Your task to perform on an android device: toggle translation in the chrome app Image 0: 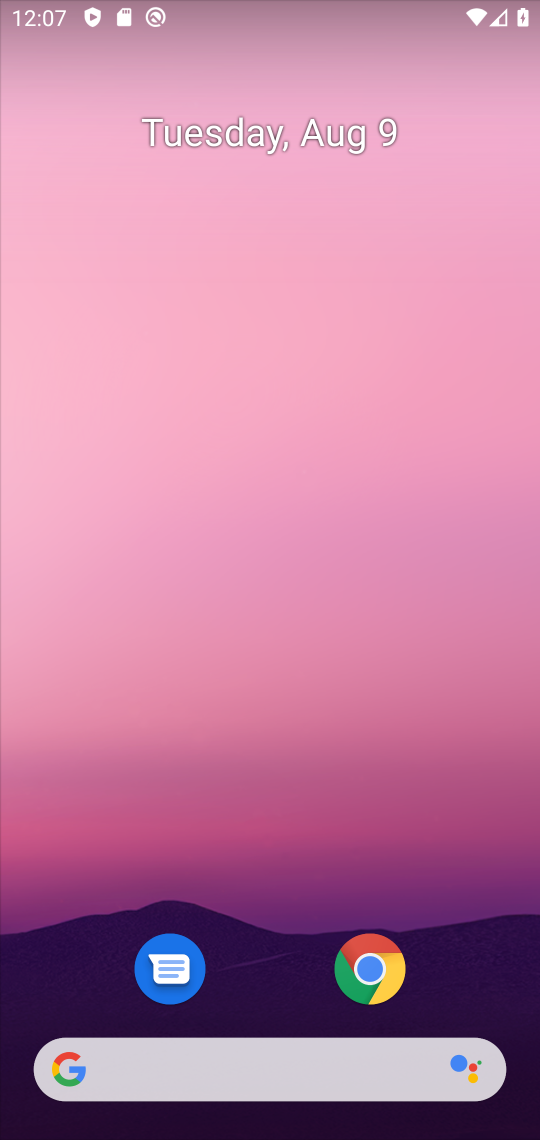
Step 0: drag from (422, 136) to (445, 68)
Your task to perform on an android device: toggle translation in the chrome app Image 1: 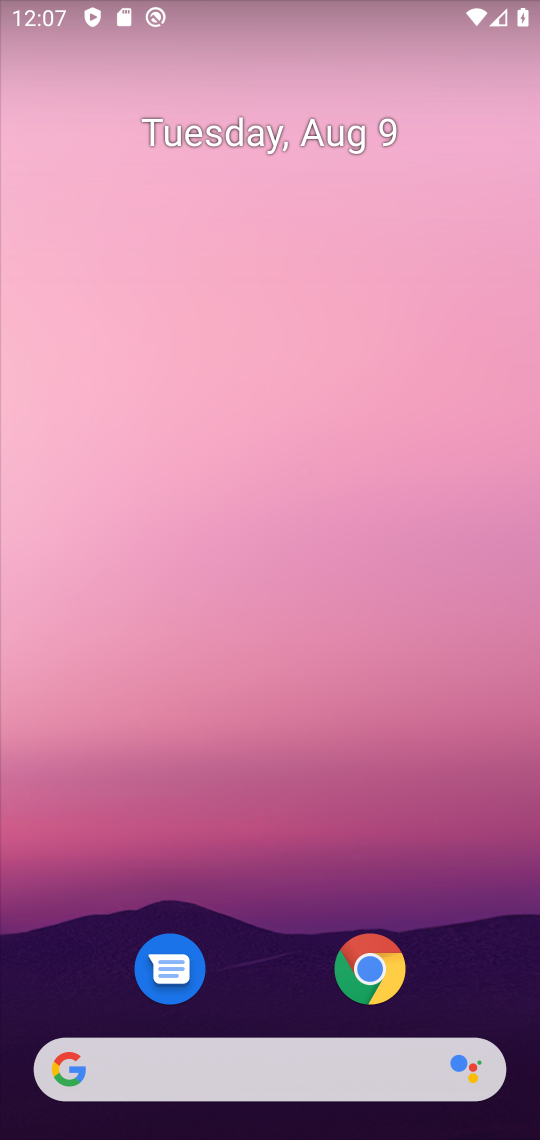
Step 1: click (372, 956)
Your task to perform on an android device: toggle translation in the chrome app Image 2: 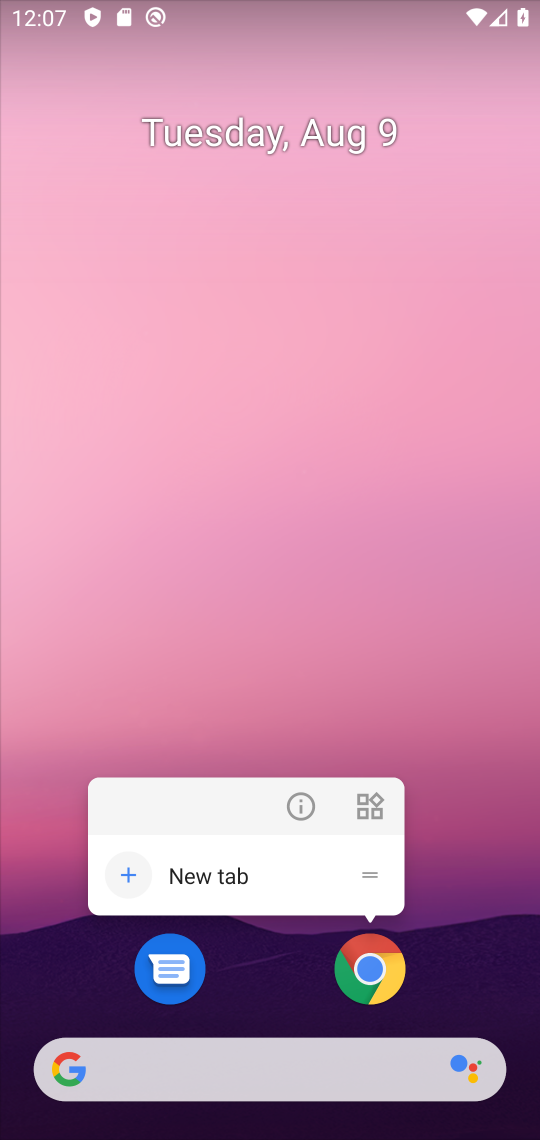
Step 2: click (306, 799)
Your task to perform on an android device: toggle translation in the chrome app Image 3: 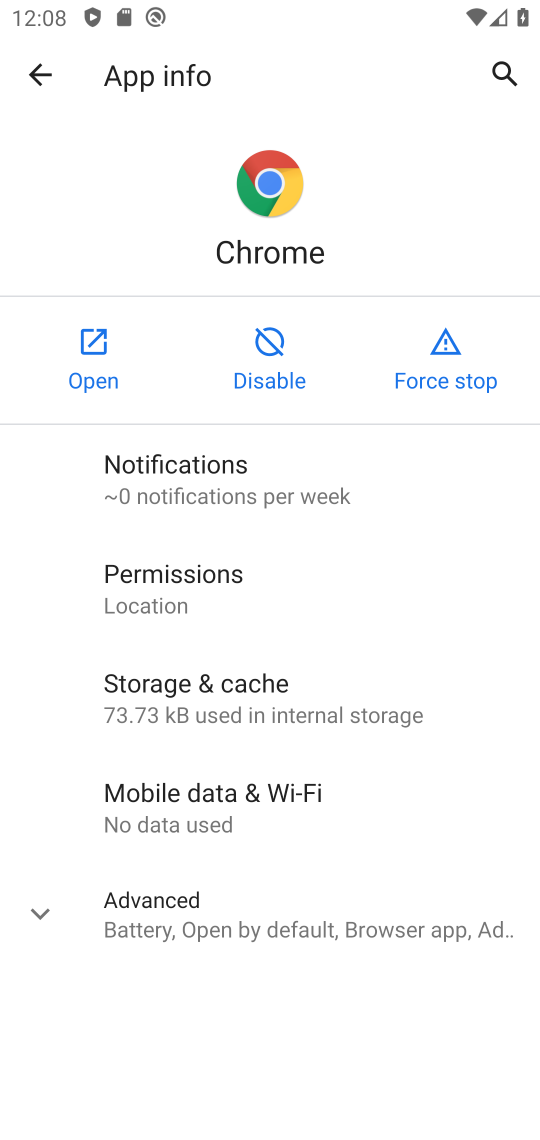
Step 3: click (102, 386)
Your task to perform on an android device: toggle translation in the chrome app Image 4: 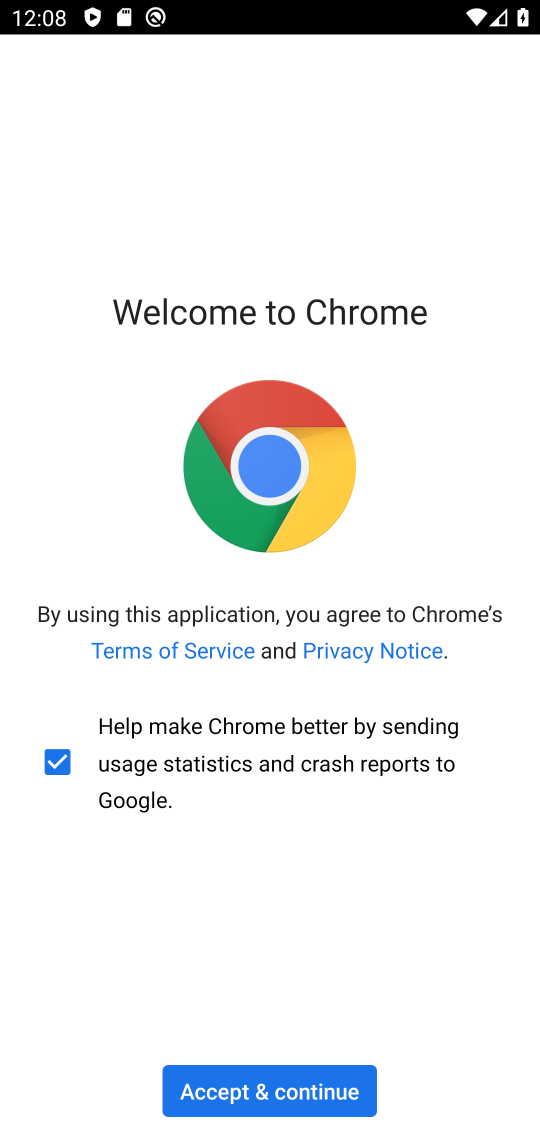
Step 4: click (334, 655)
Your task to perform on an android device: toggle translation in the chrome app Image 5: 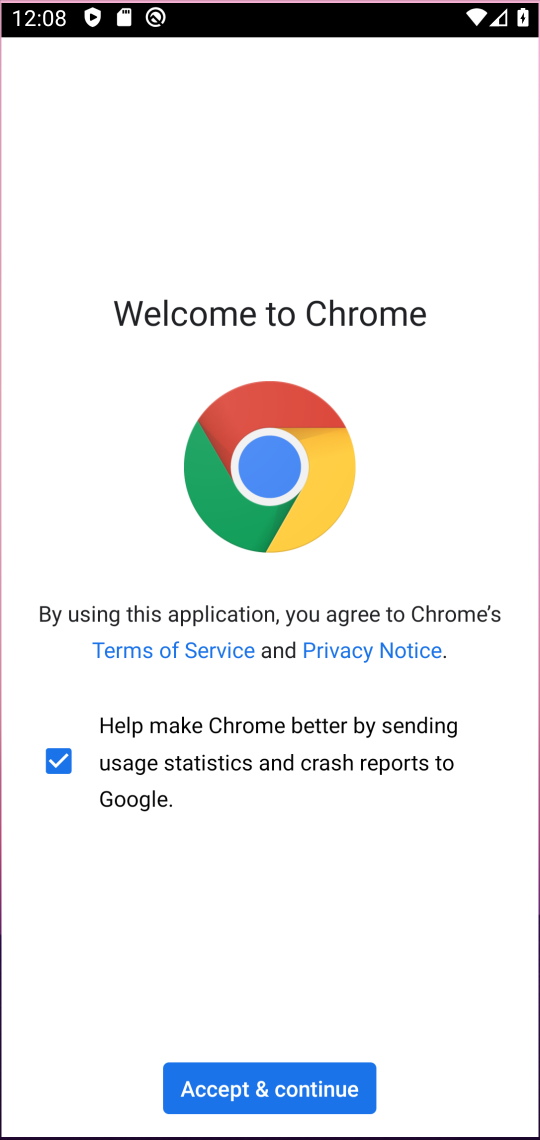
Step 5: click (216, 1082)
Your task to perform on an android device: toggle translation in the chrome app Image 6: 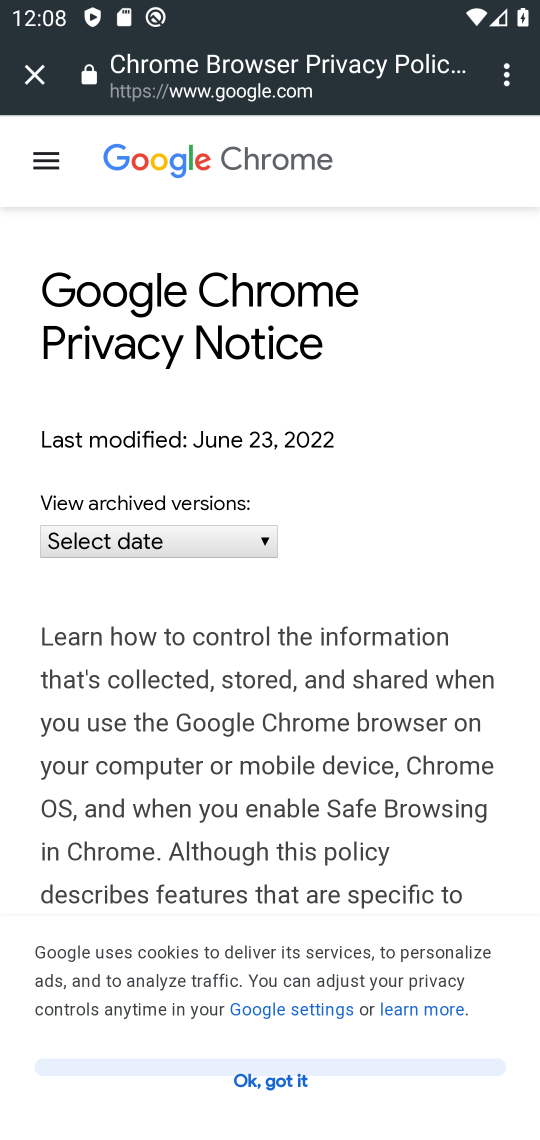
Step 6: drag from (331, 870) to (345, 529)
Your task to perform on an android device: toggle translation in the chrome app Image 7: 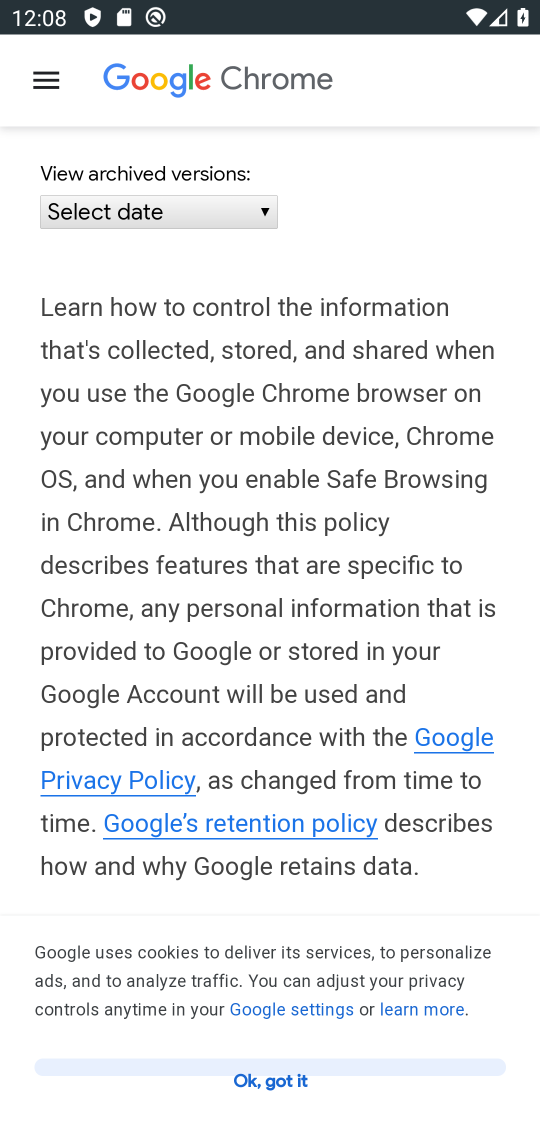
Step 7: click (287, 1074)
Your task to perform on an android device: toggle translation in the chrome app Image 8: 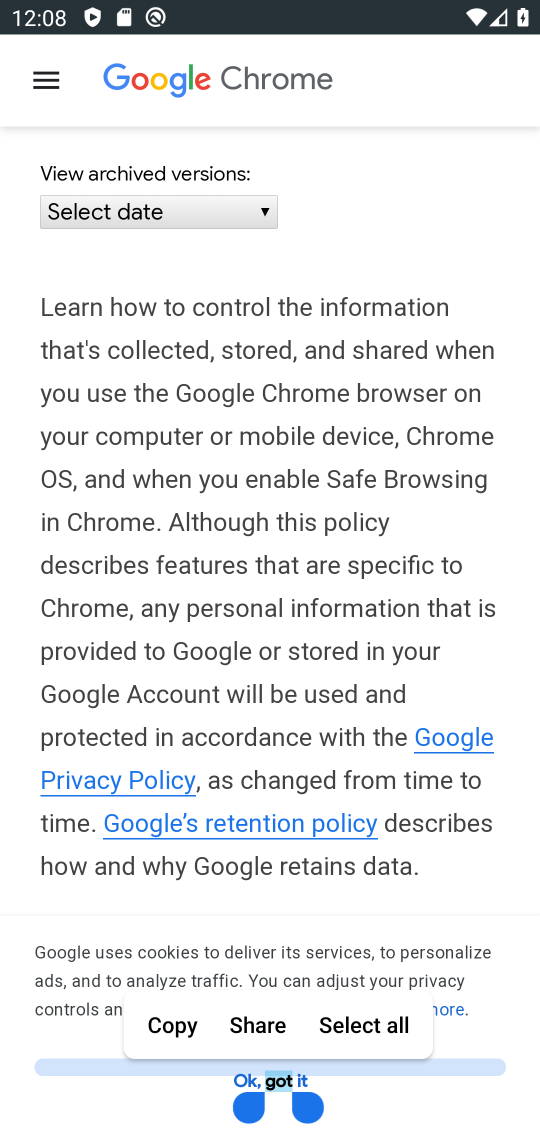
Step 8: click (289, 1092)
Your task to perform on an android device: toggle translation in the chrome app Image 9: 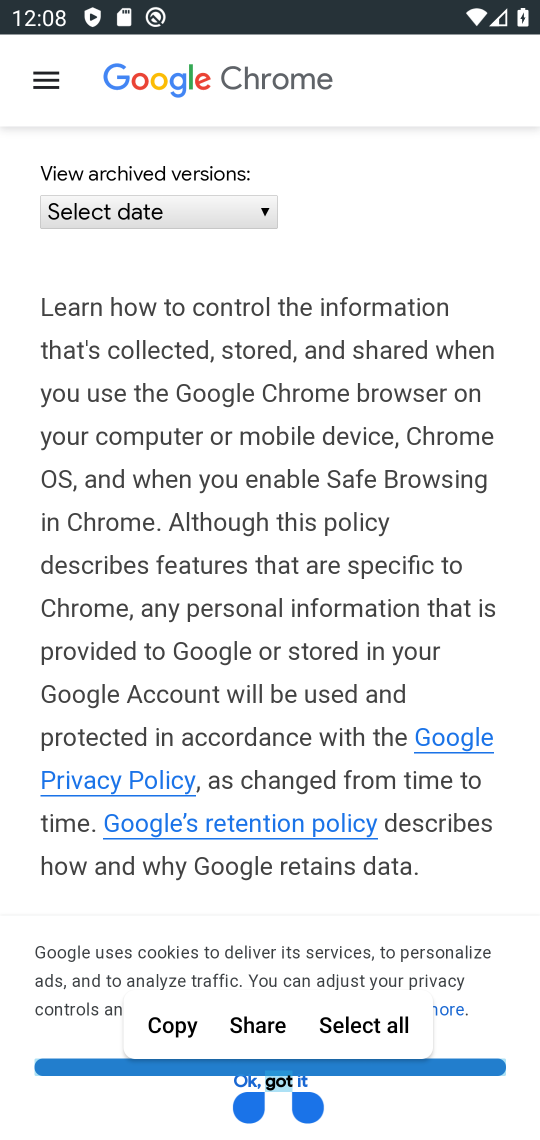
Step 9: click (260, 1077)
Your task to perform on an android device: toggle translation in the chrome app Image 10: 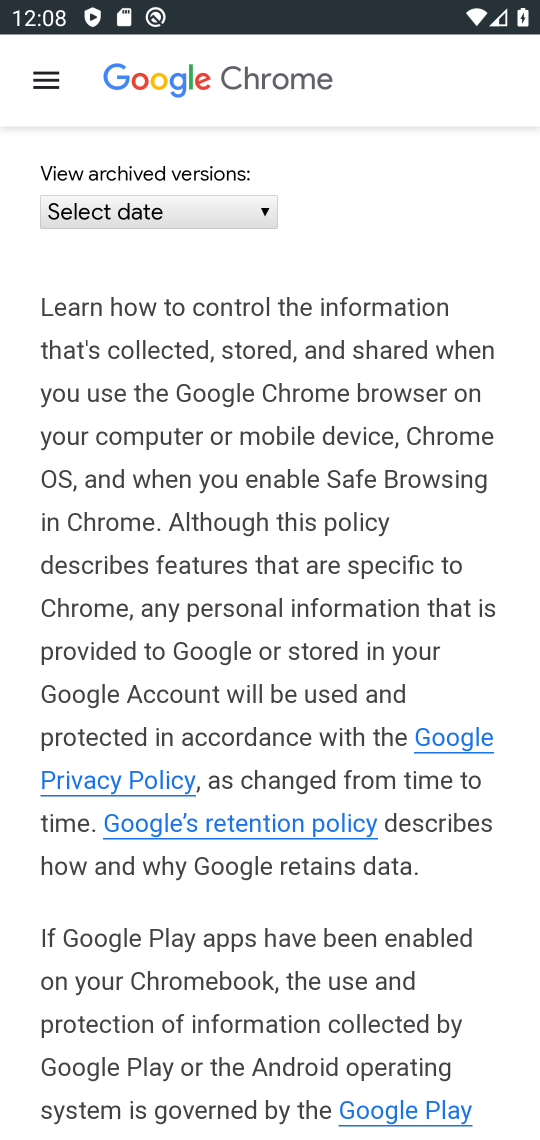
Step 10: drag from (309, 1025) to (505, 62)
Your task to perform on an android device: toggle translation in the chrome app Image 11: 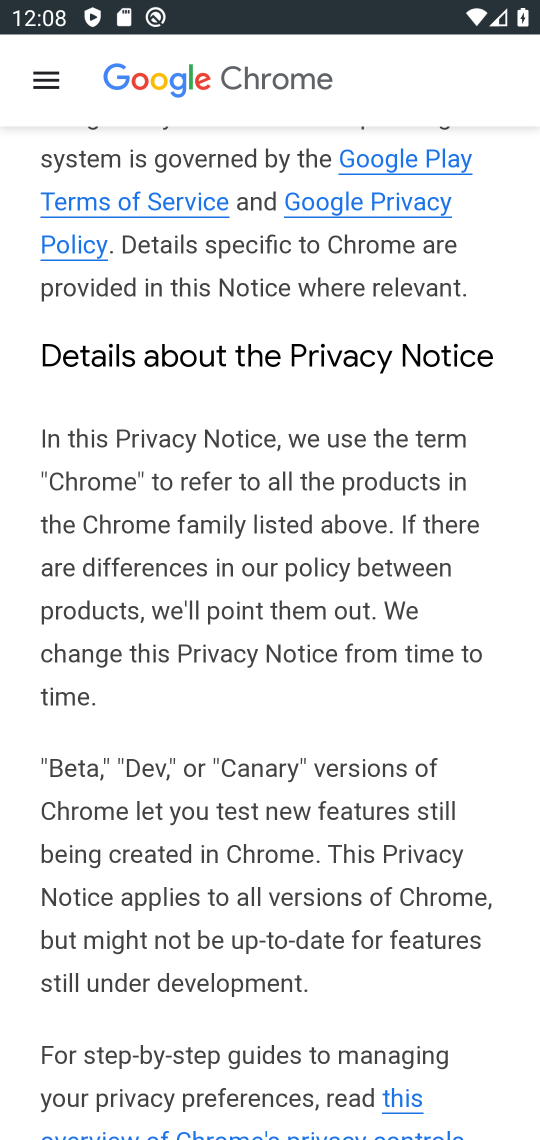
Step 11: drag from (289, 1004) to (449, 367)
Your task to perform on an android device: toggle translation in the chrome app Image 12: 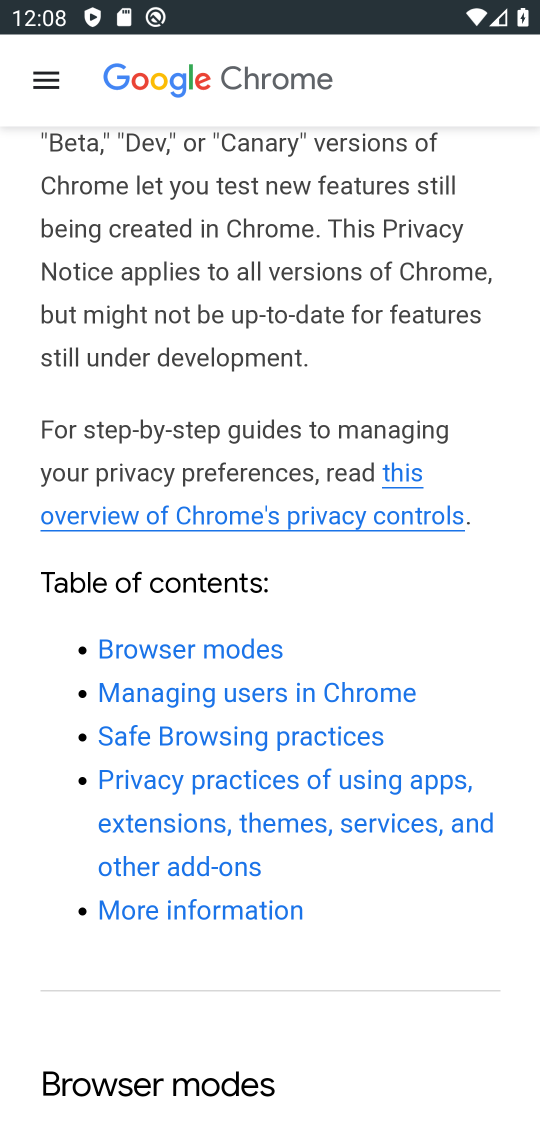
Step 12: drag from (301, 857) to (402, 612)
Your task to perform on an android device: toggle translation in the chrome app Image 13: 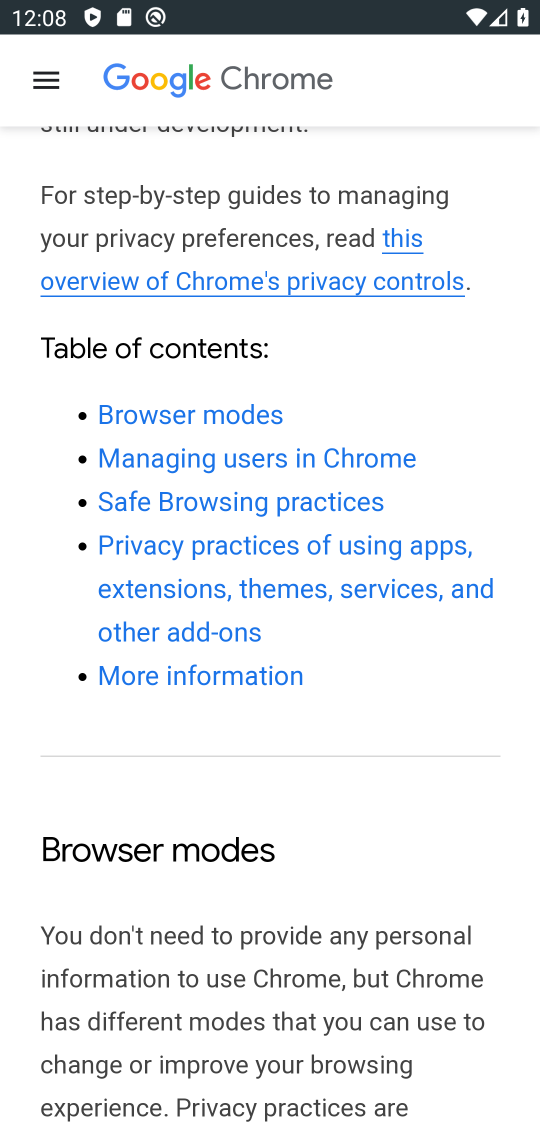
Step 13: press home button
Your task to perform on an android device: toggle translation in the chrome app Image 14: 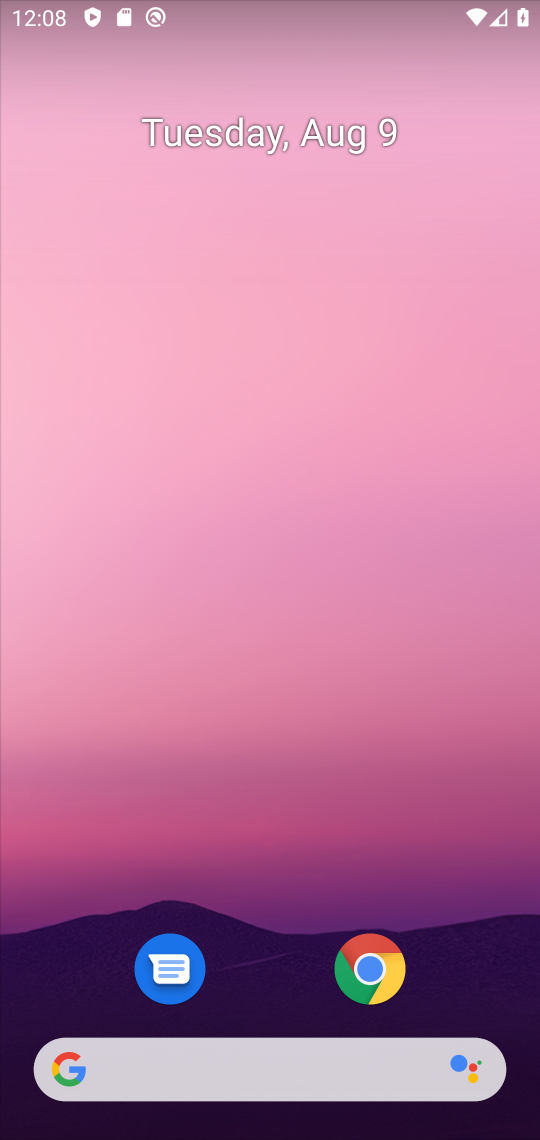
Step 14: click (377, 964)
Your task to perform on an android device: toggle translation in the chrome app Image 15: 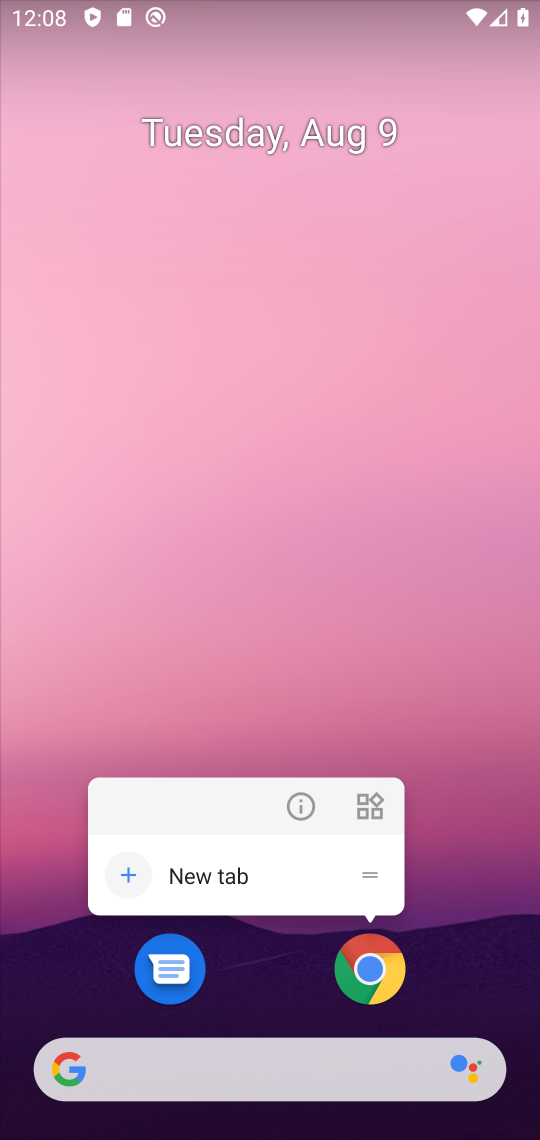
Step 15: click (310, 803)
Your task to perform on an android device: toggle translation in the chrome app Image 16: 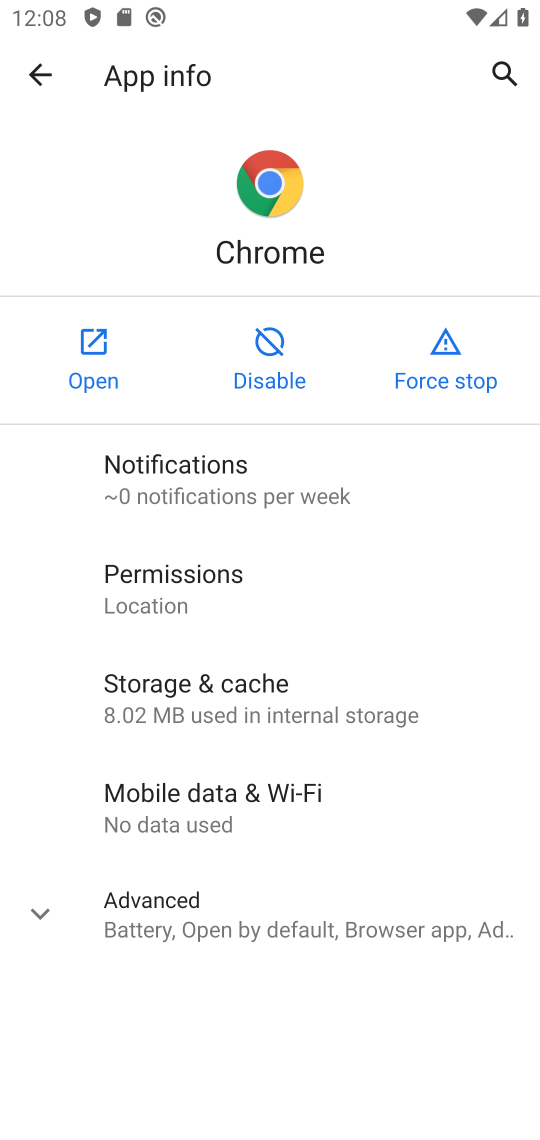
Step 16: click (83, 356)
Your task to perform on an android device: toggle translation in the chrome app Image 17: 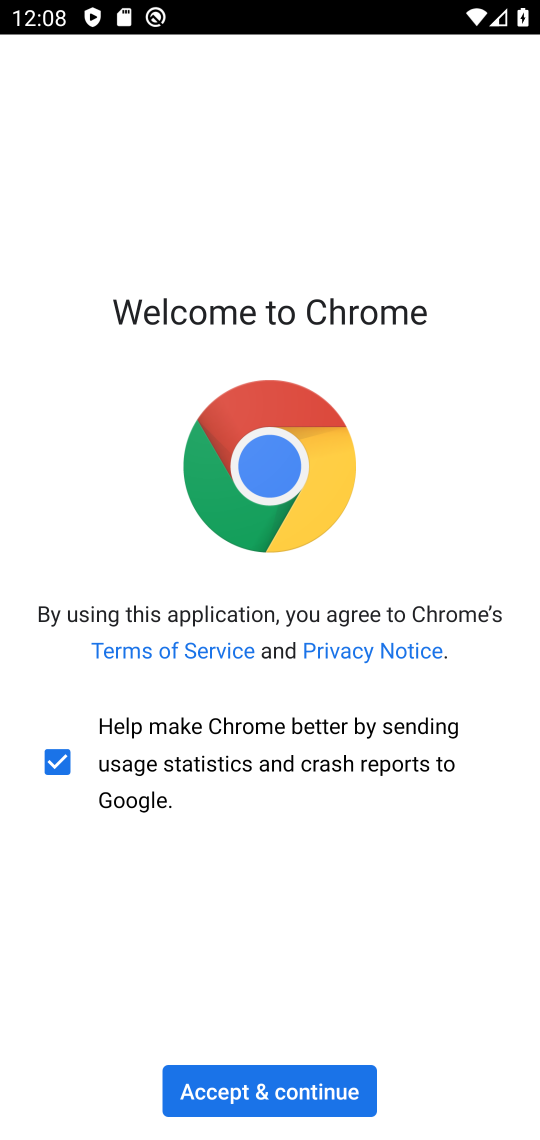
Step 17: drag from (313, 925) to (303, 527)
Your task to perform on an android device: toggle translation in the chrome app Image 18: 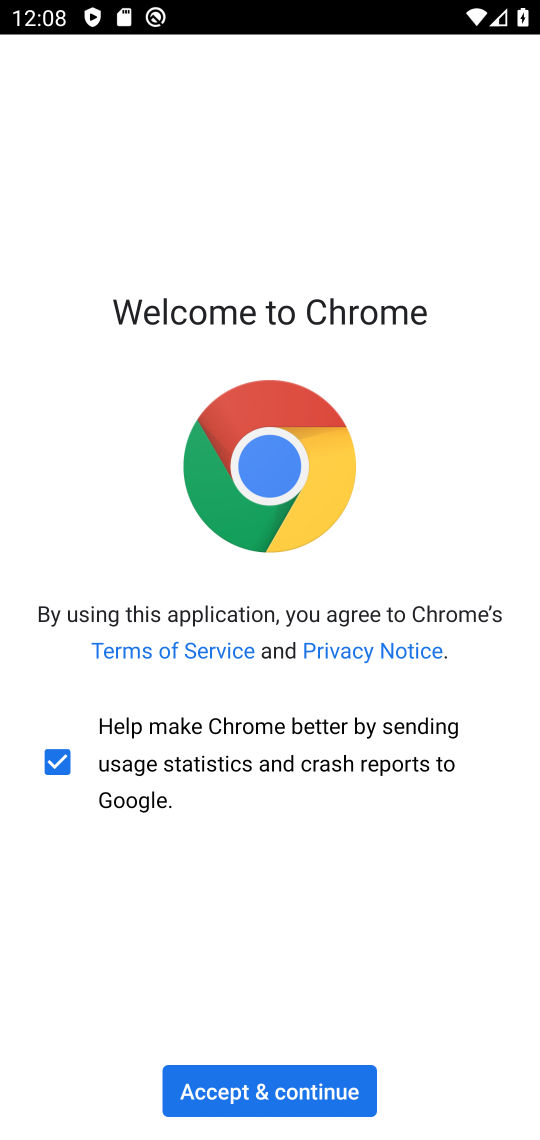
Step 18: click (263, 1087)
Your task to perform on an android device: toggle translation in the chrome app Image 19: 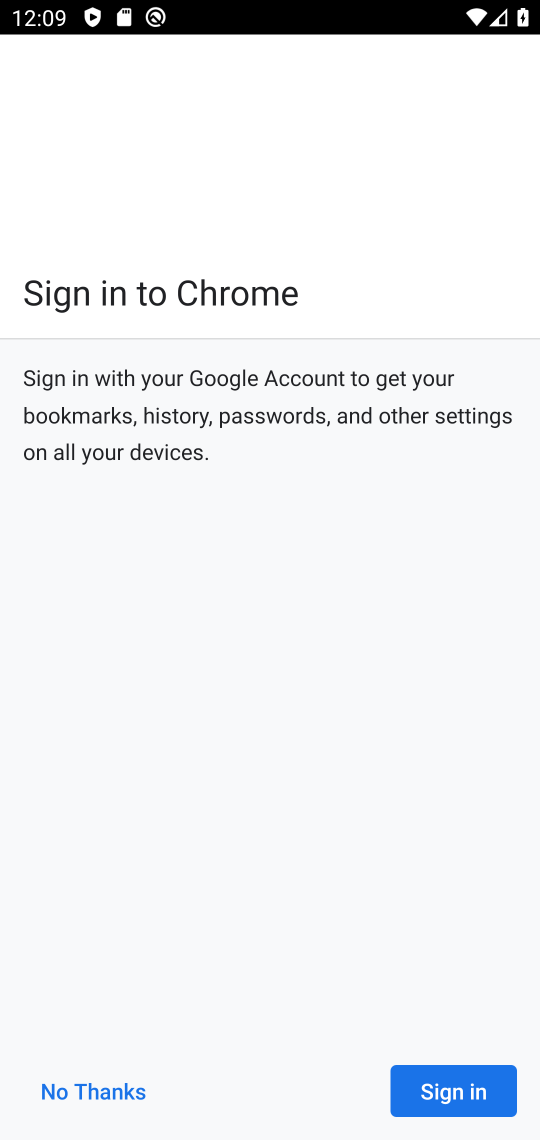
Step 19: click (109, 1087)
Your task to perform on an android device: toggle translation in the chrome app Image 20: 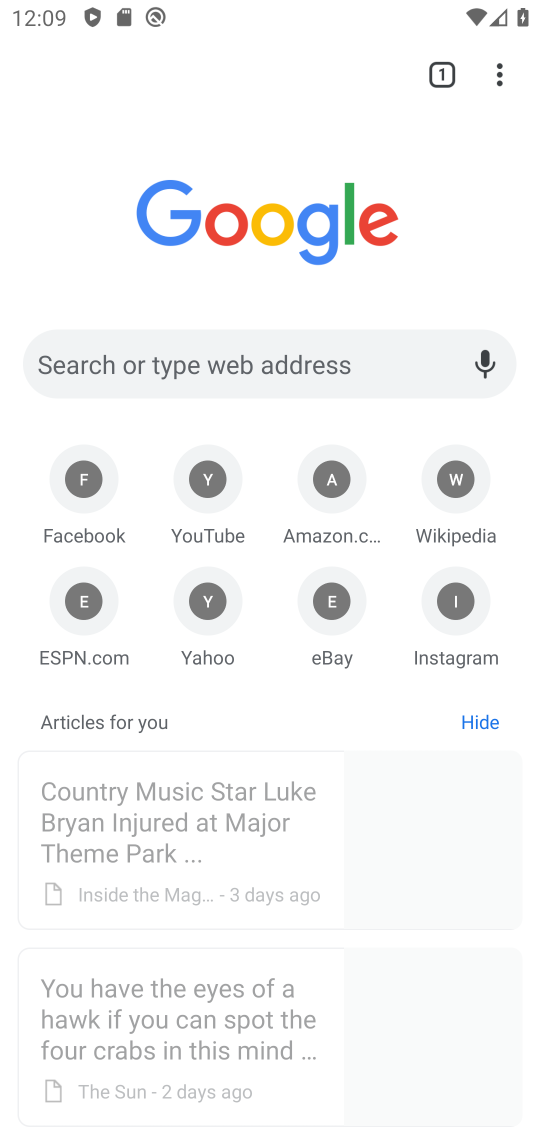
Step 20: drag from (490, 60) to (259, 627)
Your task to perform on an android device: toggle translation in the chrome app Image 21: 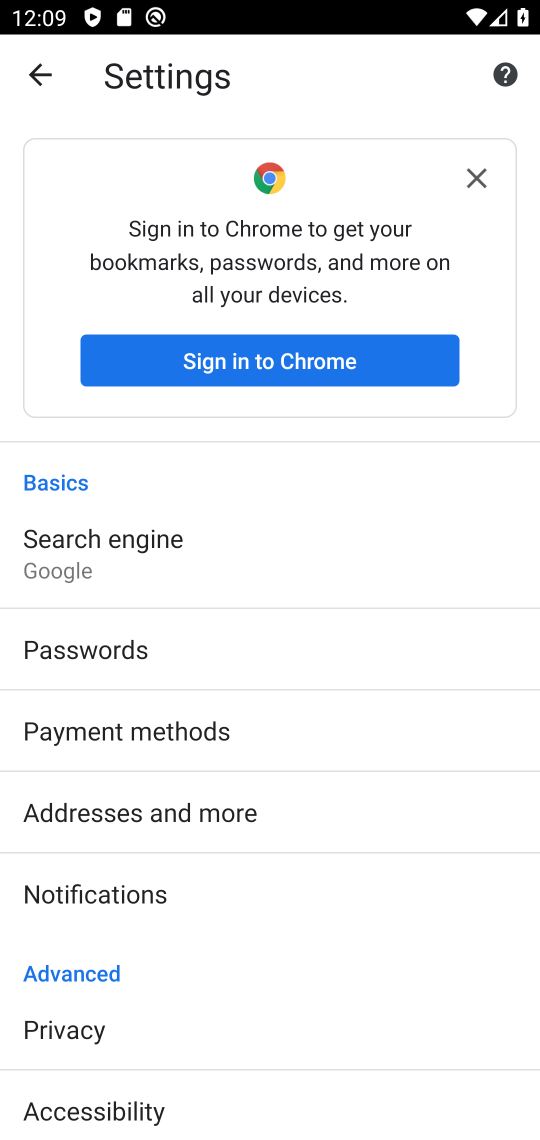
Step 21: drag from (280, 957) to (316, 169)
Your task to perform on an android device: toggle translation in the chrome app Image 22: 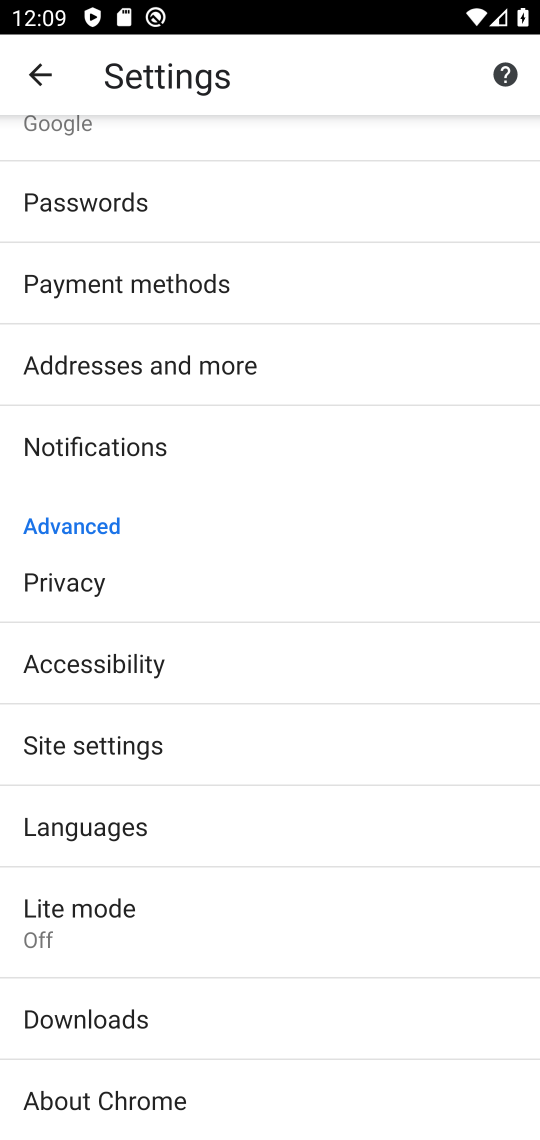
Step 22: click (164, 729)
Your task to perform on an android device: toggle translation in the chrome app Image 23: 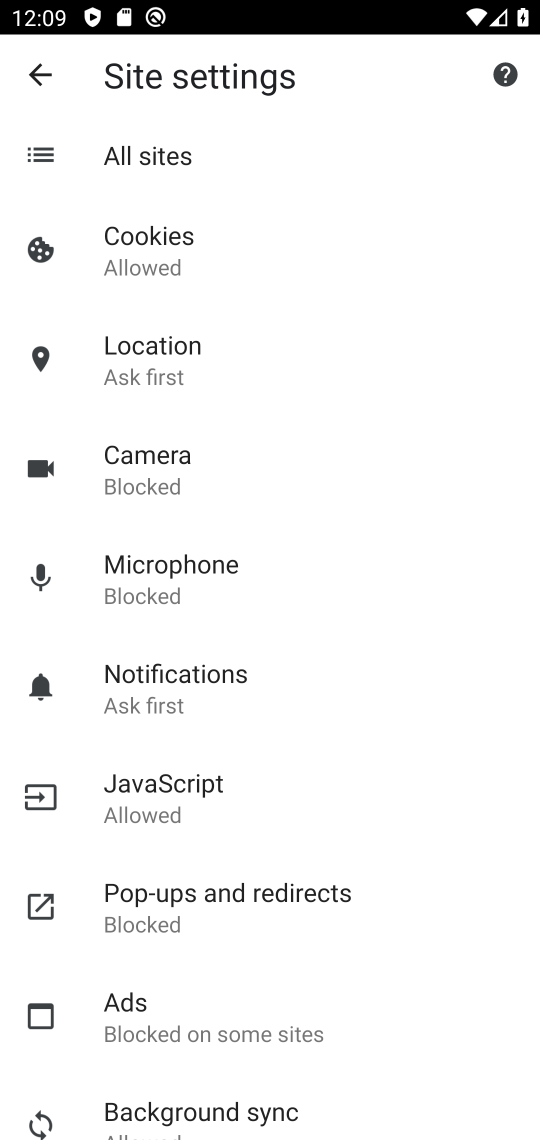
Step 23: click (292, 385)
Your task to perform on an android device: toggle translation in the chrome app Image 24: 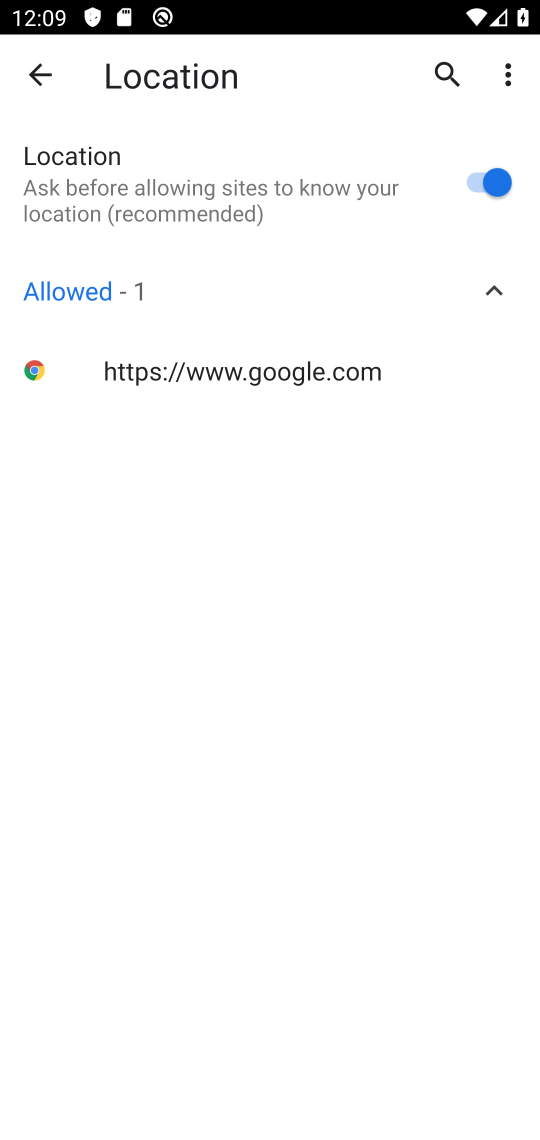
Step 24: press back button
Your task to perform on an android device: toggle translation in the chrome app Image 25: 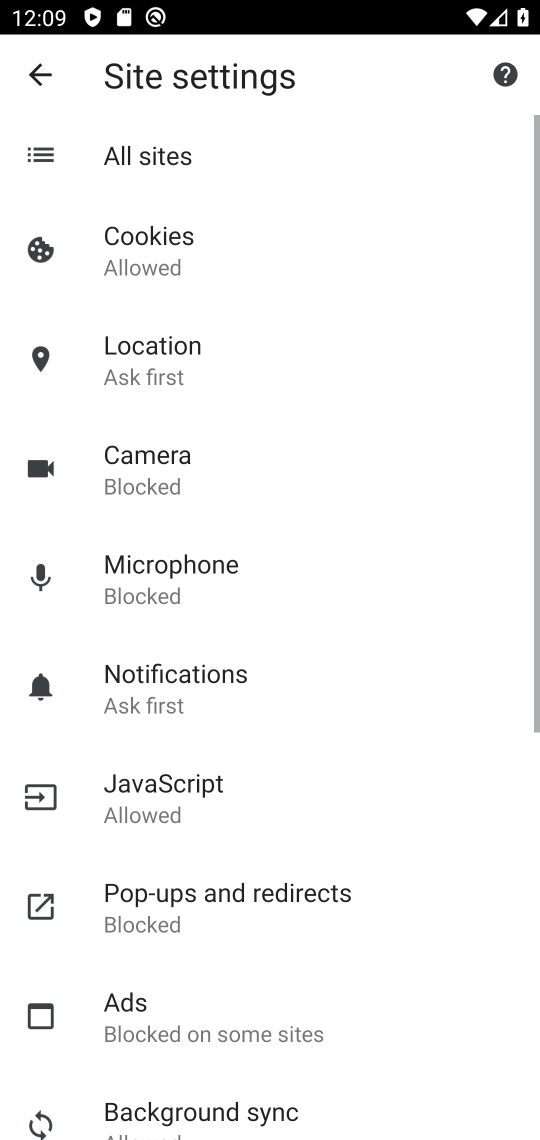
Step 25: drag from (292, 1041) to (407, 126)
Your task to perform on an android device: toggle translation in the chrome app Image 26: 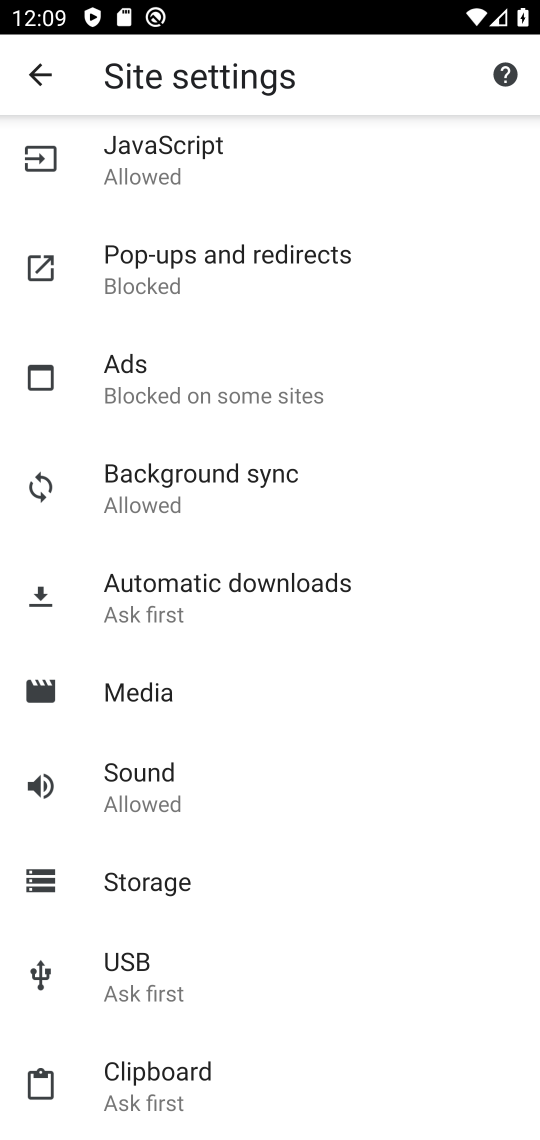
Step 26: click (32, 63)
Your task to perform on an android device: toggle translation in the chrome app Image 27: 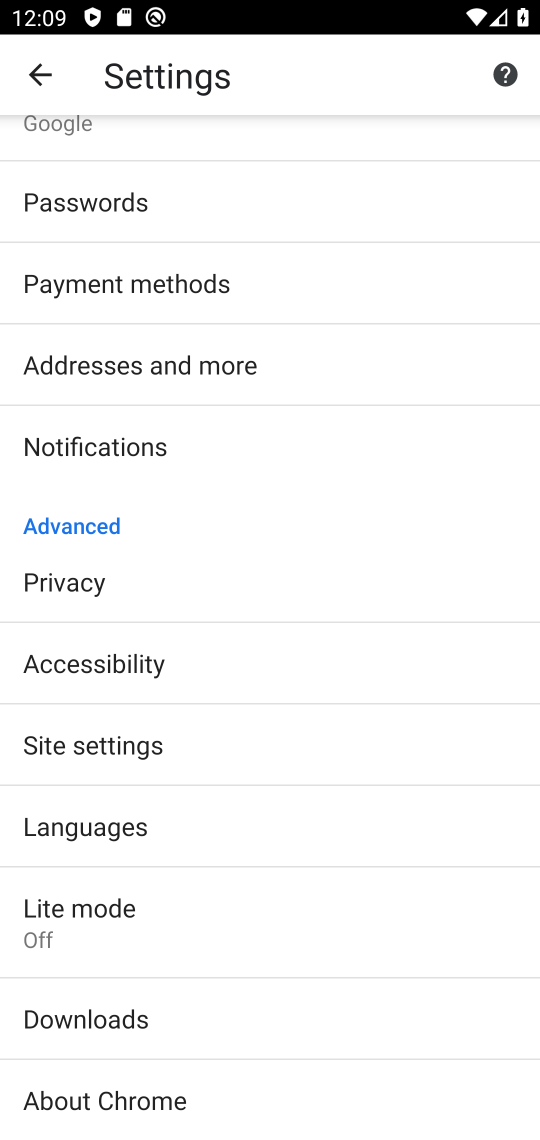
Step 27: click (151, 796)
Your task to perform on an android device: toggle translation in the chrome app Image 28: 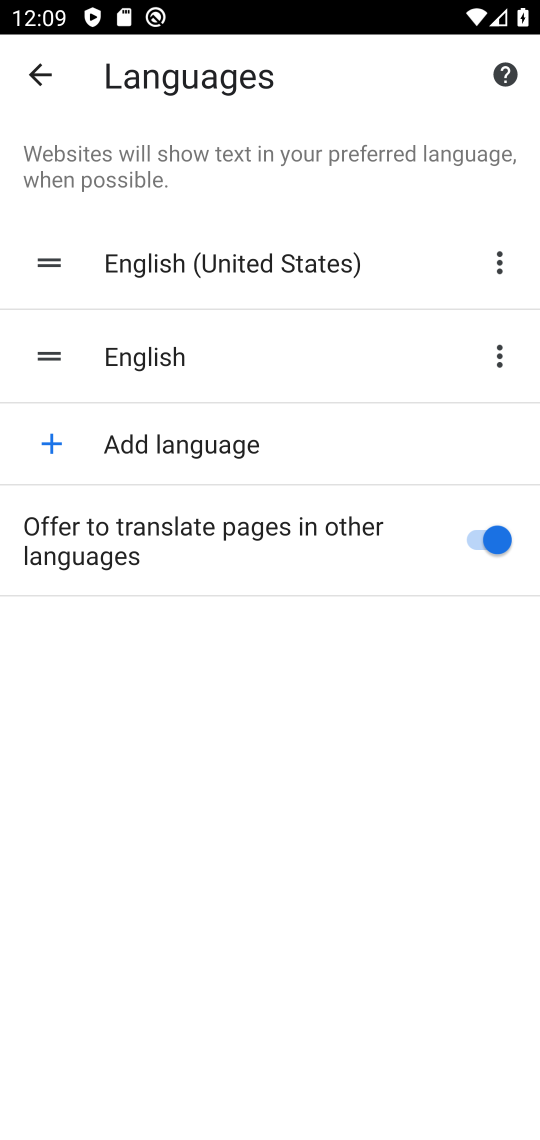
Step 28: click (482, 538)
Your task to perform on an android device: toggle translation in the chrome app Image 29: 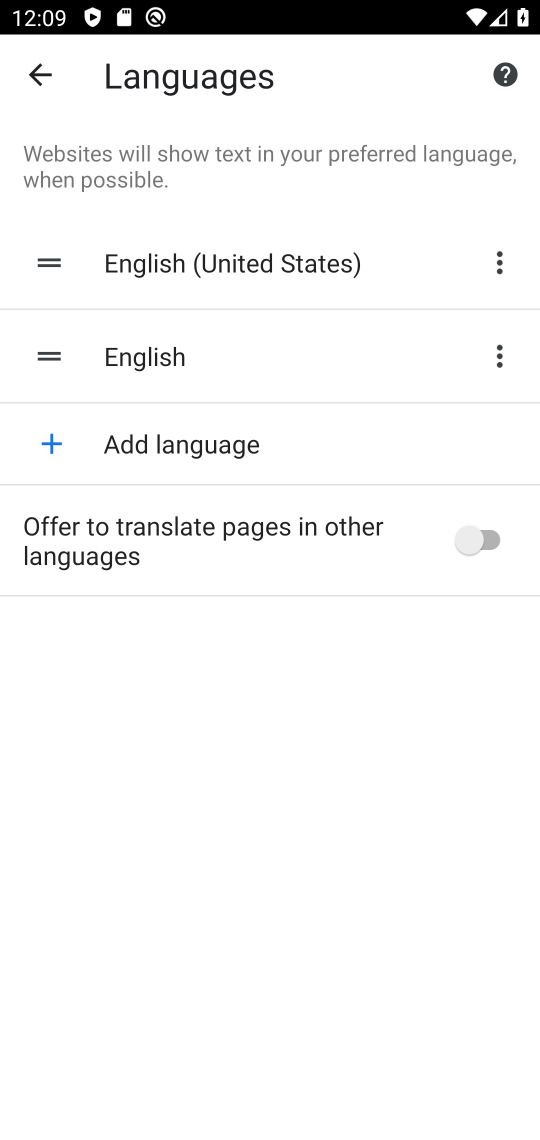
Step 29: task complete